Your task to perform on an android device: turn off translation in the chrome app Image 0: 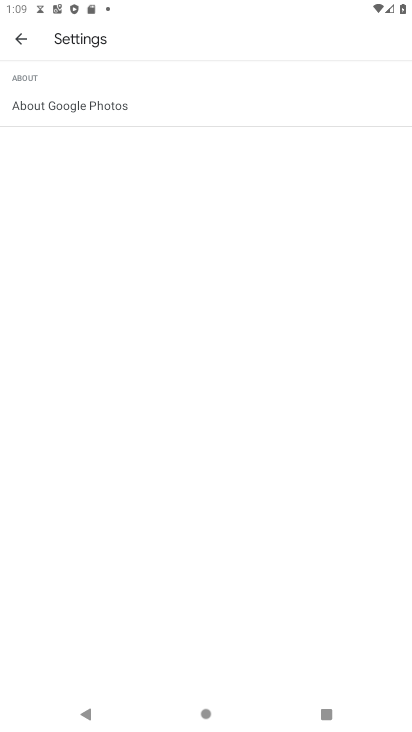
Step 0: press home button
Your task to perform on an android device: turn off translation in the chrome app Image 1: 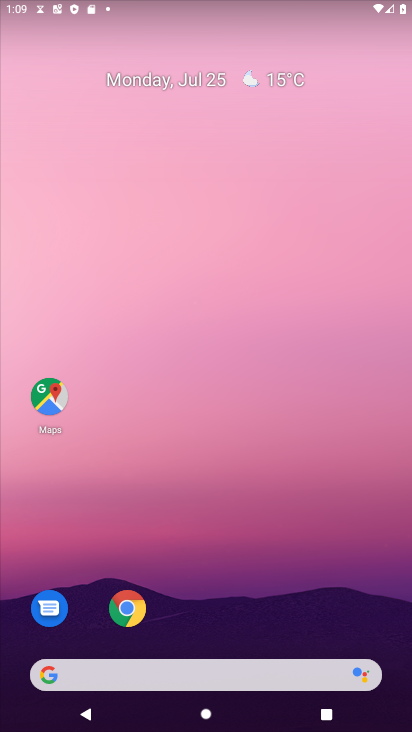
Step 1: drag from (198, 483) to (245, 79)
Your task to perform on an android device: turn off translation in the chrome app Image 2: 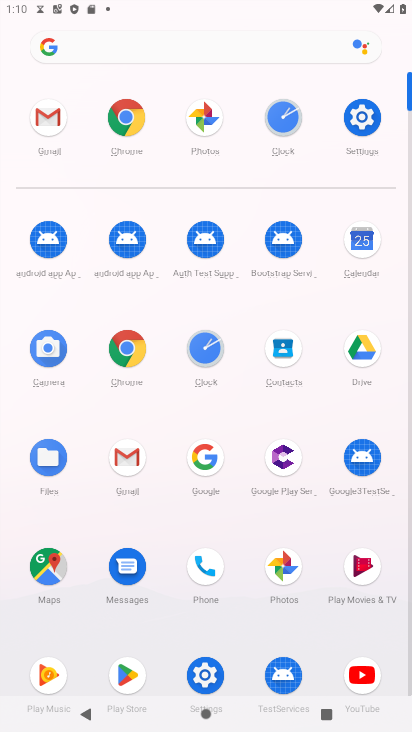
Step 2: click (135, 355)
Your task to perform on an android device: turn off translation in the chrome app Image 3: 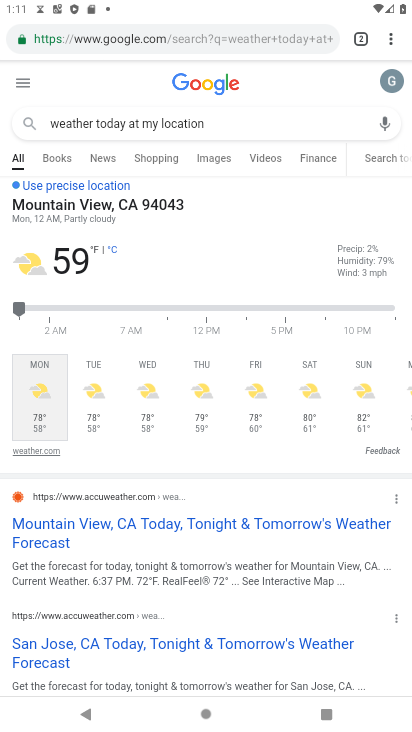
Step 3: click (391, 39)
Your task to perform on an android device: turn off translation in the chrome app Image 4: 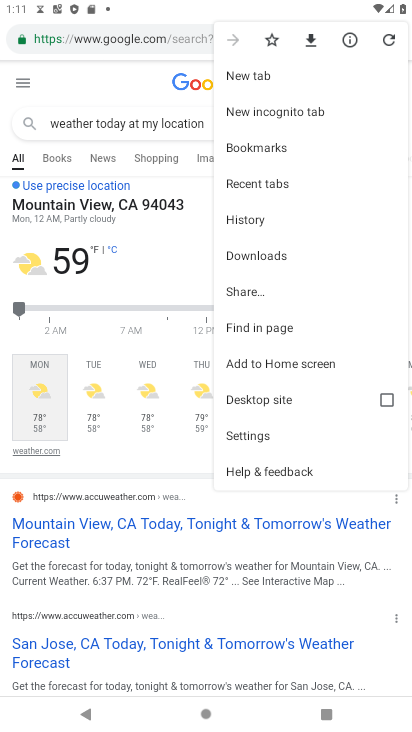
Step 4: click (286, 440)
Your task to perform on an android device: turn off translation in the chrome app Image 5: 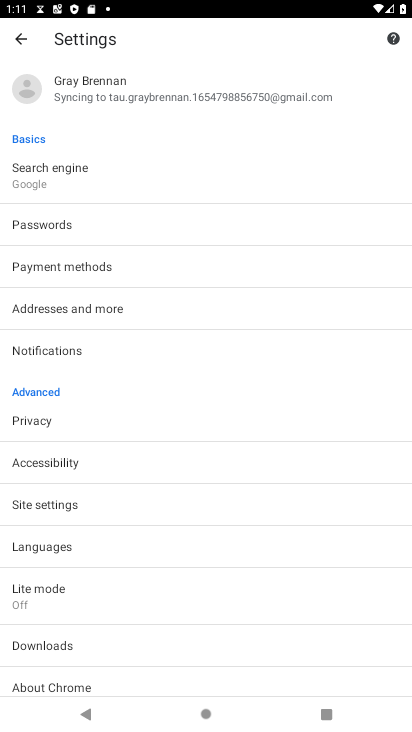
Step 5: click (116, 547)
Your task to perform on an android device: turn off translation in the chrome app Image 6: 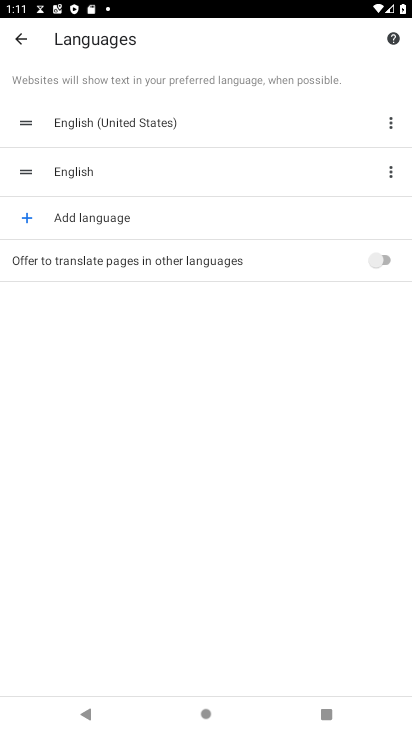
Step 6: task complete